Your task to perform on an android device: snooze an email in the gmail app Image 0: 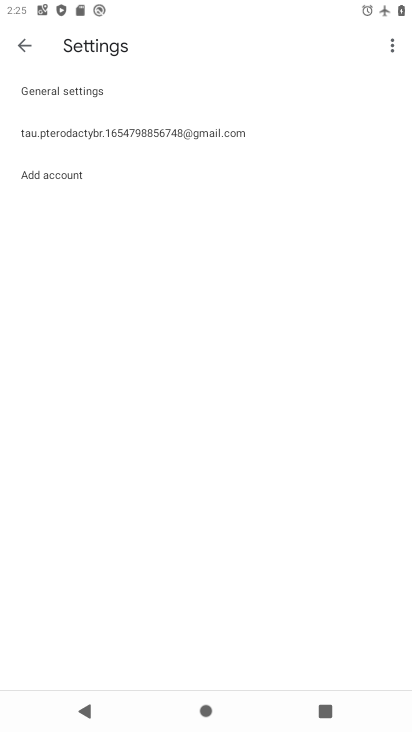
Step 0: press home button
Your task to perform on an android device: snooze an email in the gmail app Image 1: 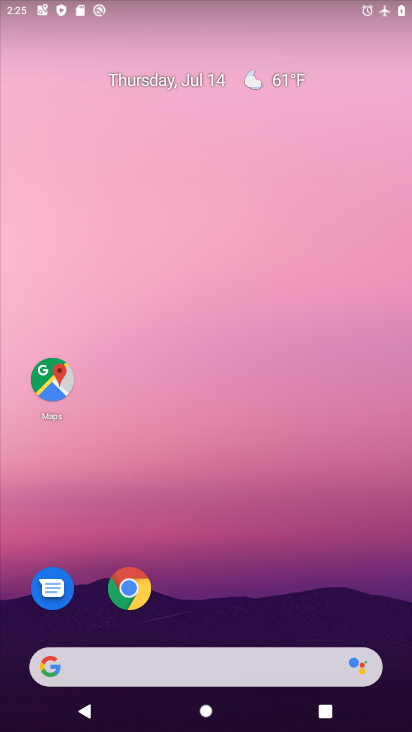
Step 1: drag from (245, 645) to (334, 163)
Your task to perform on an android device: snooze an email in the gmail app Image 2: 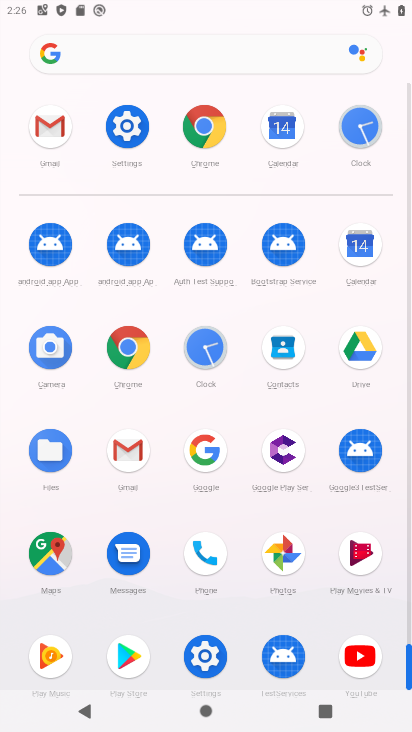
Step 2: click (40, 125)
Your task to perform on an android device: snooze an email in the gmail app Image 3: 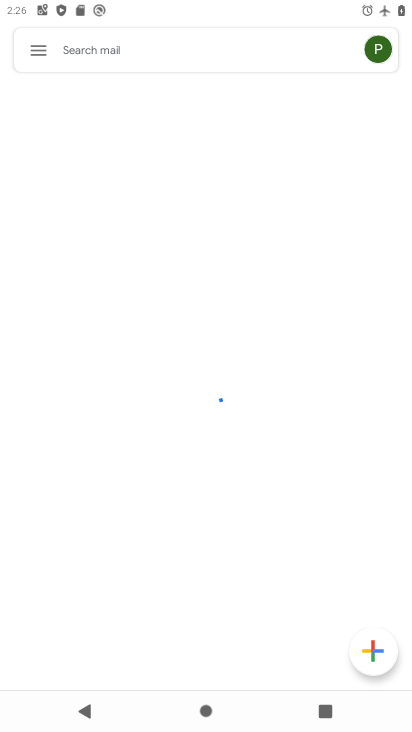
Step 3: click (36, 47)
Your task to perform on an android device: snooze an email in the gmail app Image 4: 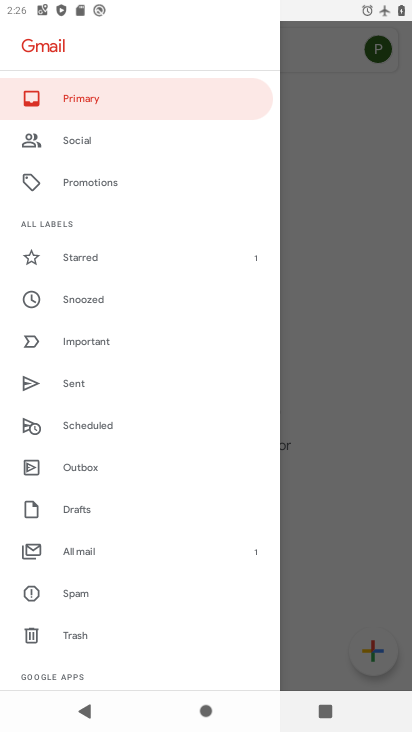
Step 4: click (84, 303)
Your task to perform on an android device: snooze an email in the gmail app Image 5: 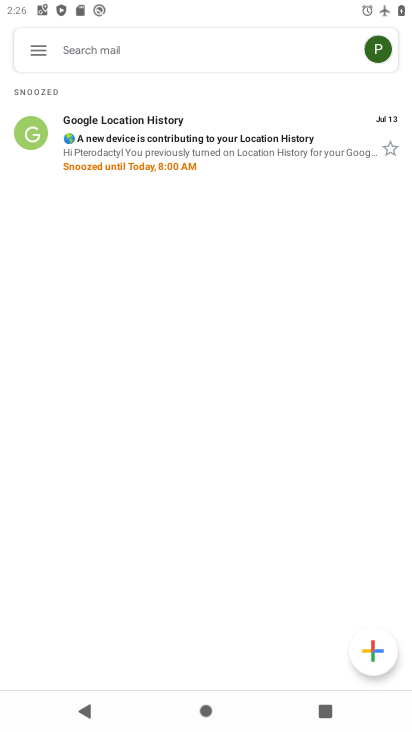
Step 5: task complete